Your task to perform on an android device: open a new tab in the chrome app Image 0: 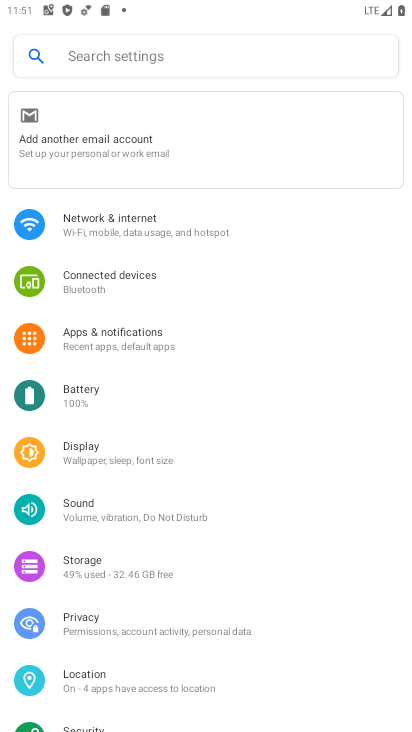
Step 0: press home button
Your task to perform on an android device: open a new tab in the chrome app Image 1: 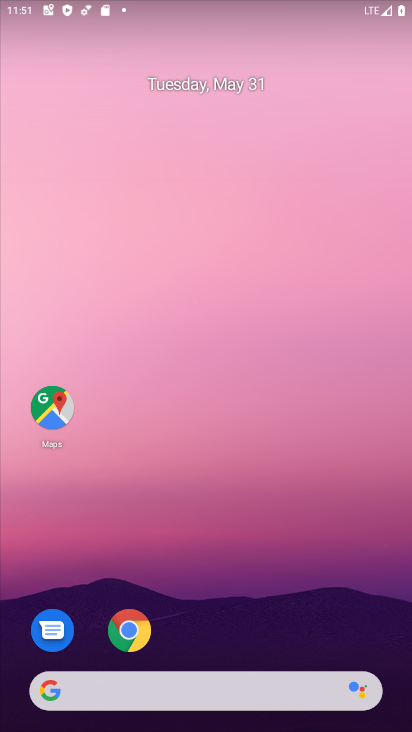
Step 1: click (140, 620)
Your task to perform on an android device: open a new tab in the chrome app Image 2: 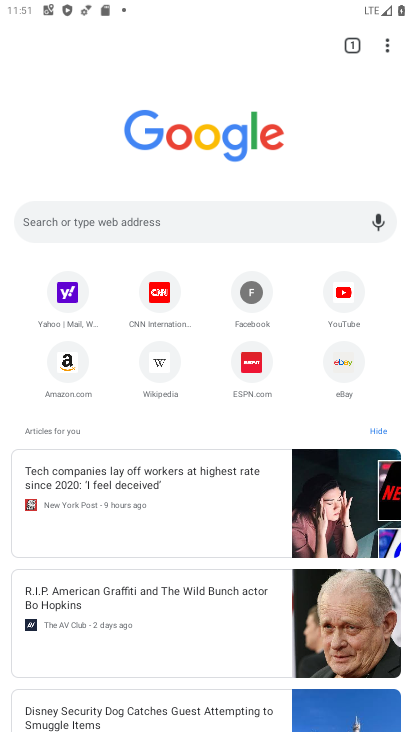
Step 2: click (352, 49)
Your task to perform on an android device: open a new tab in the chrome app Image 3: 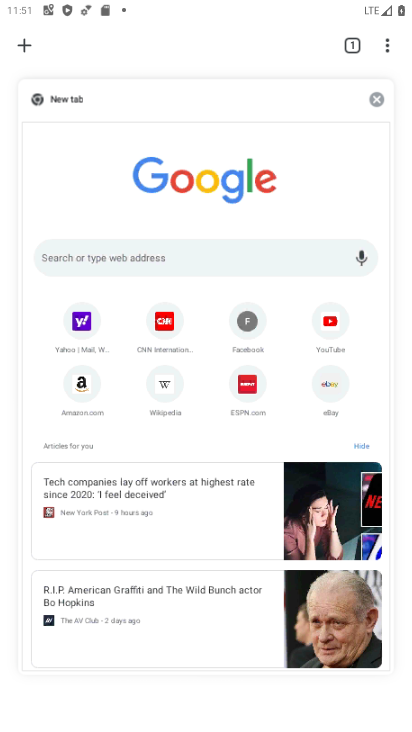
Step 3: click (22, 43)
Your task to perform on an android device: open a new tab in the chrome app Image 4: 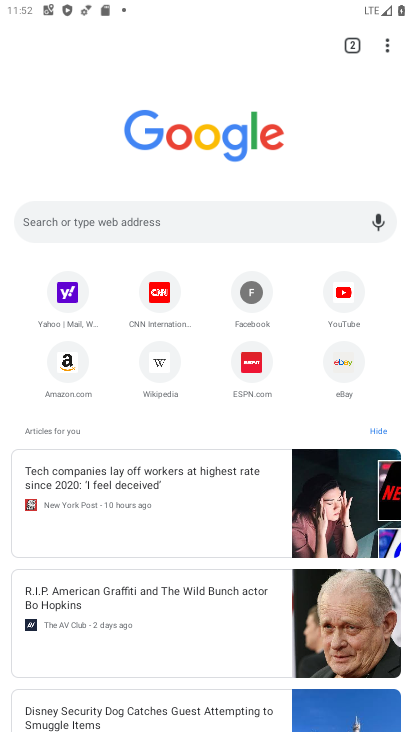
Step 4: task complete